Your task to perform on an android device: turn off priority inbox in the gmail app Image 0: 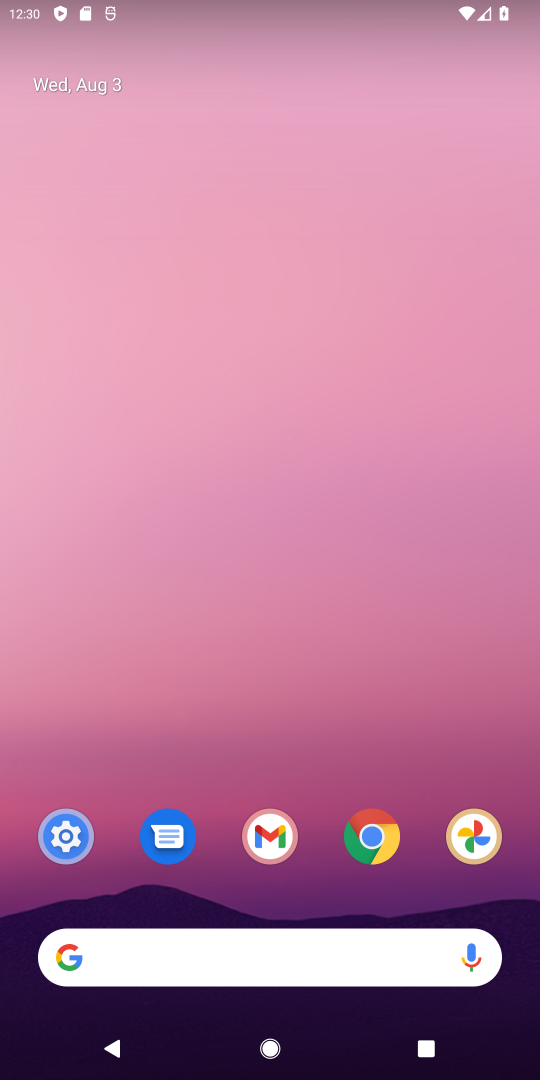
Step 0: click (71, 847)
Your task to perform on an android device: turn off priority inbox in the gmail app Image 1: 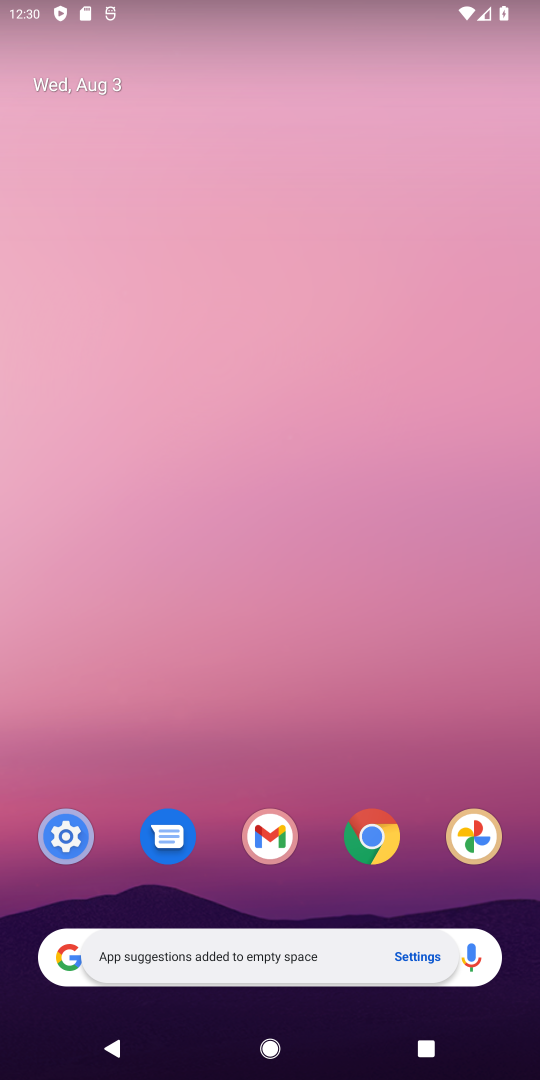
Step 1: click (65, 827)
Your task to perform on an android device: turn off priority inbox in the gmail app Image 2: 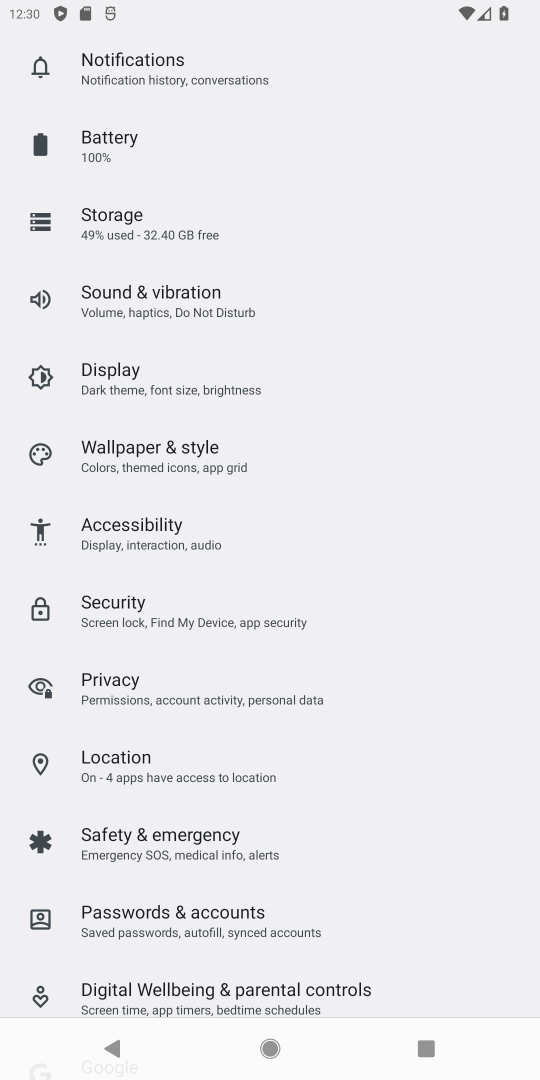
Step 2: drag from (65, 827) to (157, 370)
Your task to perform on an android device: turn off priority inbox in the gmail app Image 3: 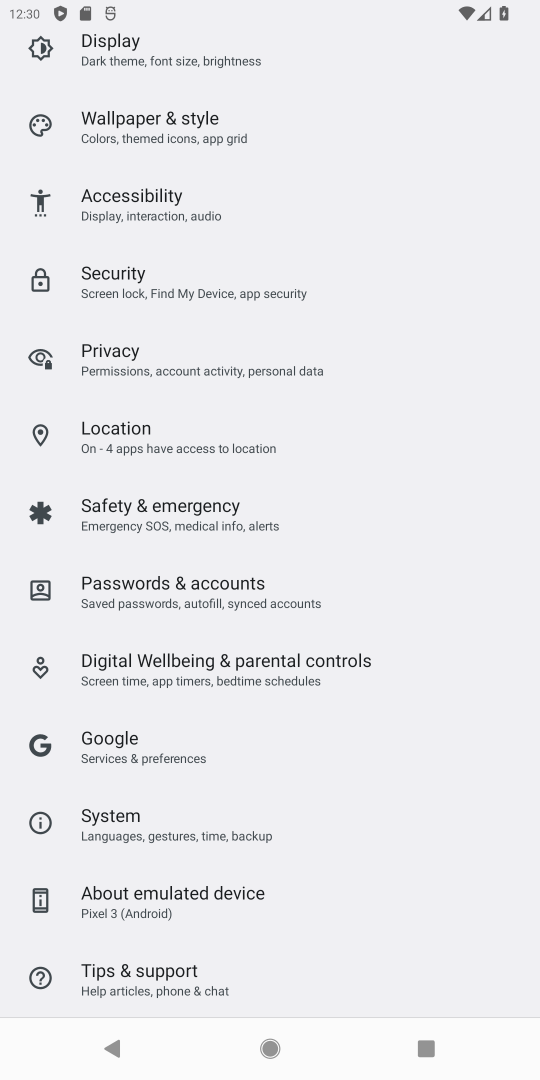
Step 3: drag from (204, 315) to (195, 851)
Your task to perform on an android device: turn off priority inbox in the gmail app Image 4: 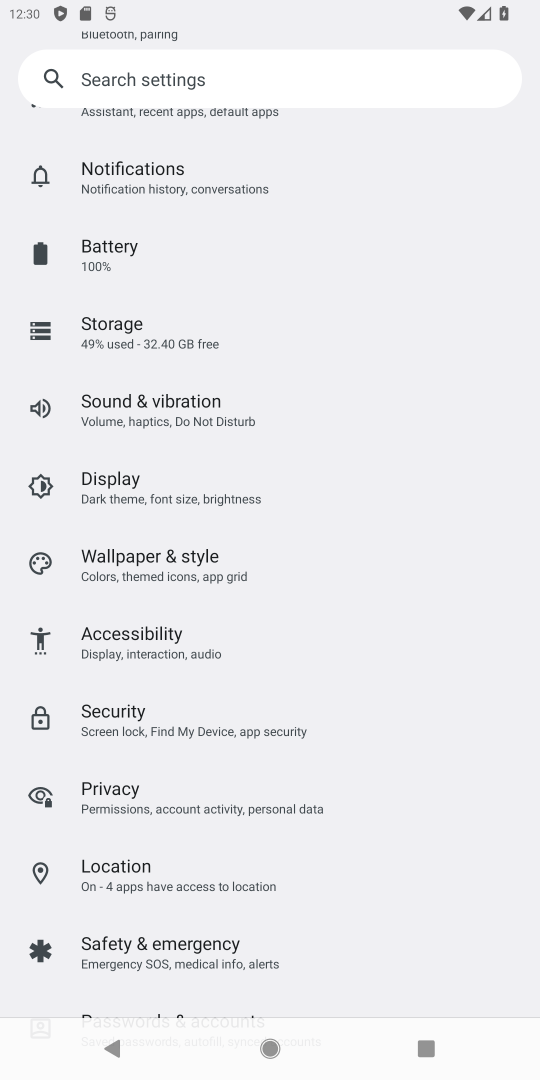
Step 4: drag from (236, 356) to (254, 654)
Your task to perform on an android device: turn off priority inbox in the gmail app Image 5: 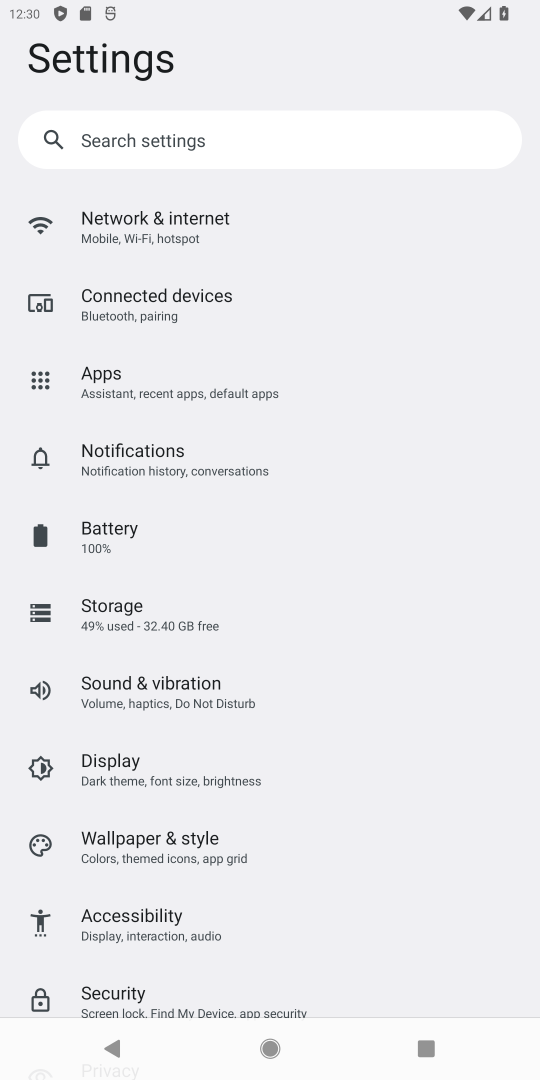
Step 5: drag from (279, 440) to (343, 1042)
Your task to perform on an android device: turn off priority inbox in the gmail app Image 6: 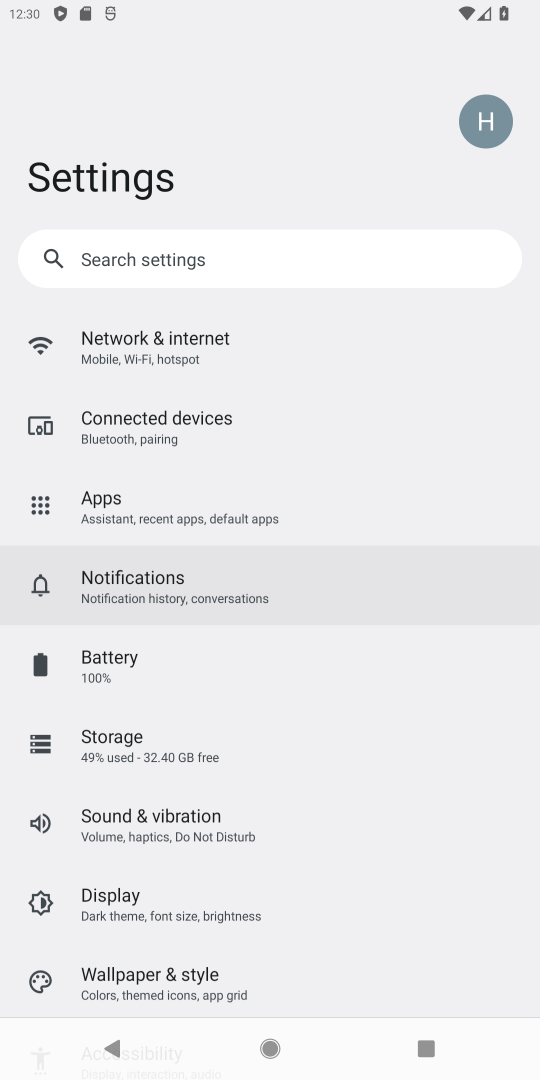
Step 6: drag from (253, 855) to (344, 273)
Your task to perform on an android device: turn off priority inbox in the gmail app Image 7: 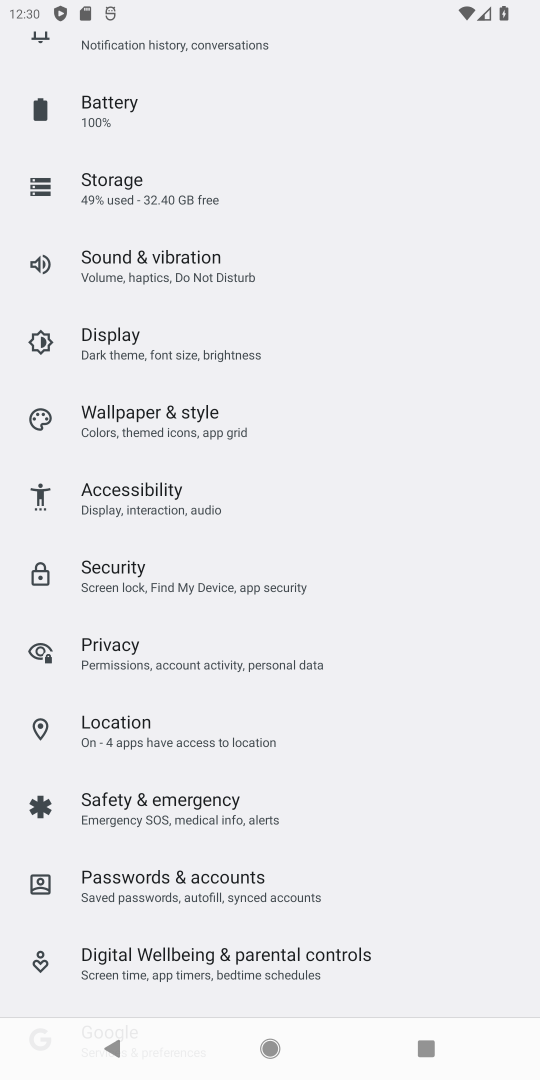
Step 7: drag from (271, 812) to (332, 246)
Your task to perform on an android device: turn off priority inbox in the gmail app Image 8: 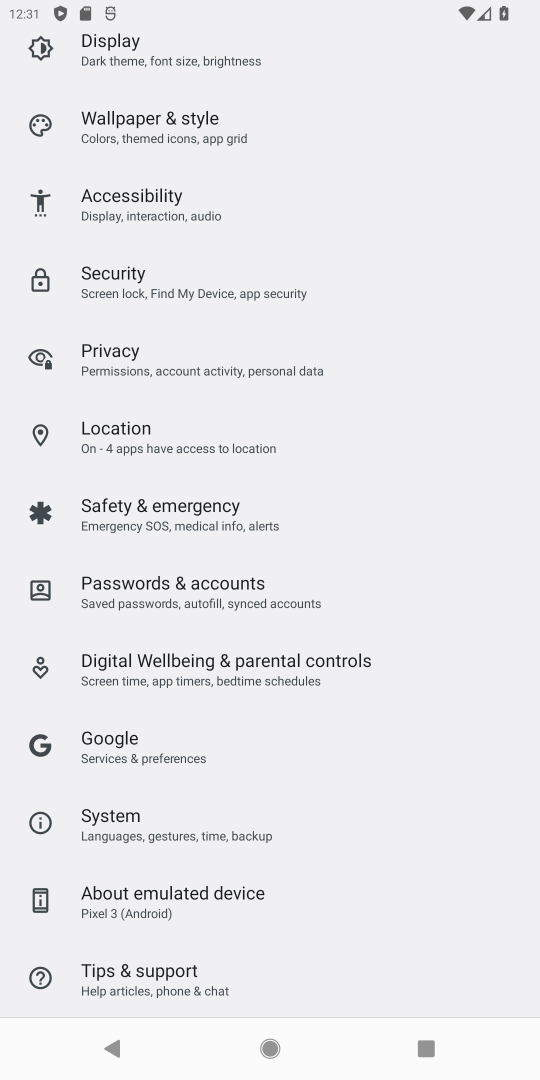
Step 8: drag from (250, 921) to (349, 288)
Your task to perform on an android device: turn off priority inbox in the gmail app Image 9: 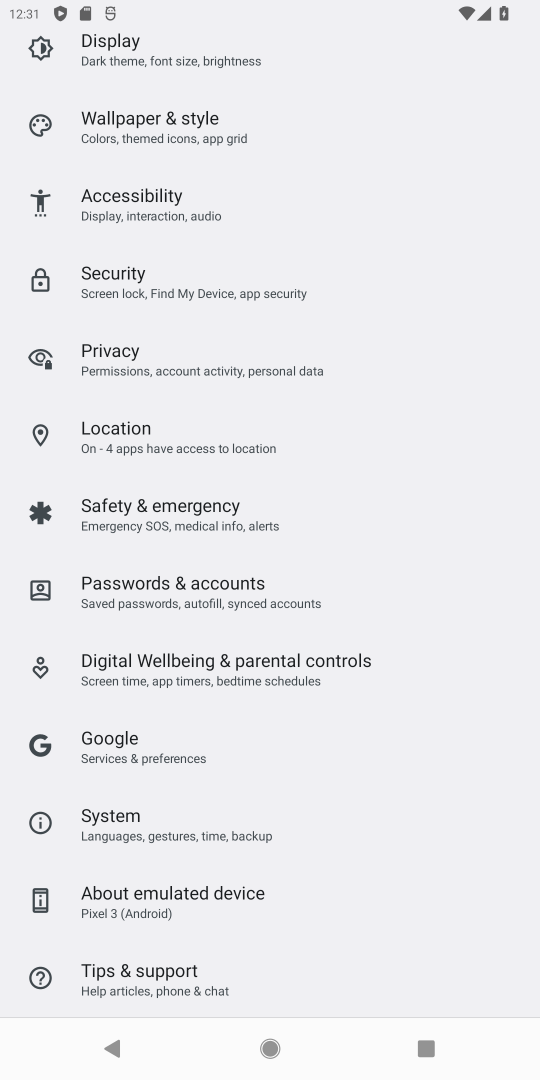
Step 9: press home button
Your task to perform on an android device: turn off priority inbox in the gmail app Image 10: 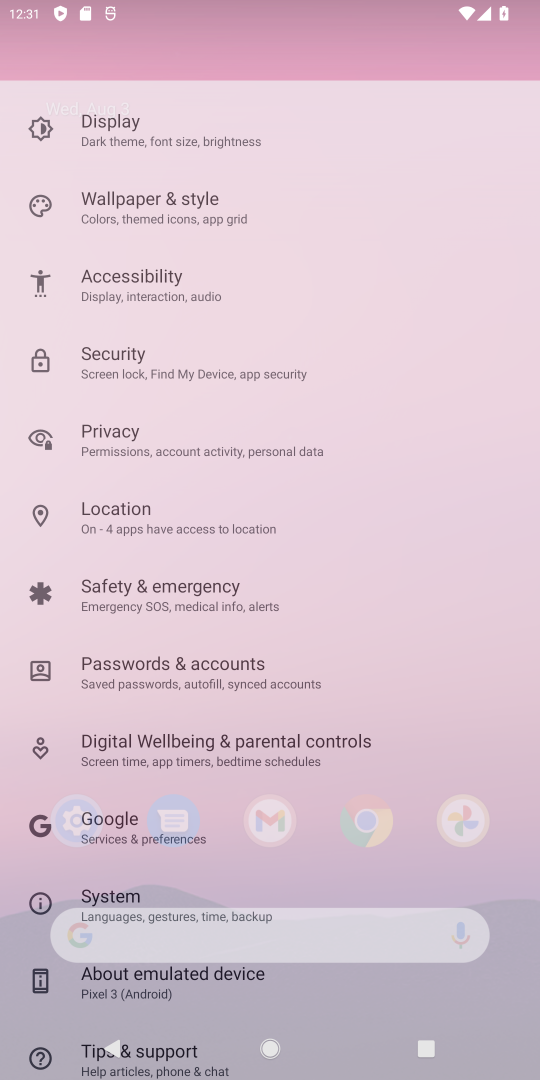
Step 10: drag from (181, 916) to (317, 160)
Your task to perform on an android device: turn off priority inbox in the gmail app Image 11: 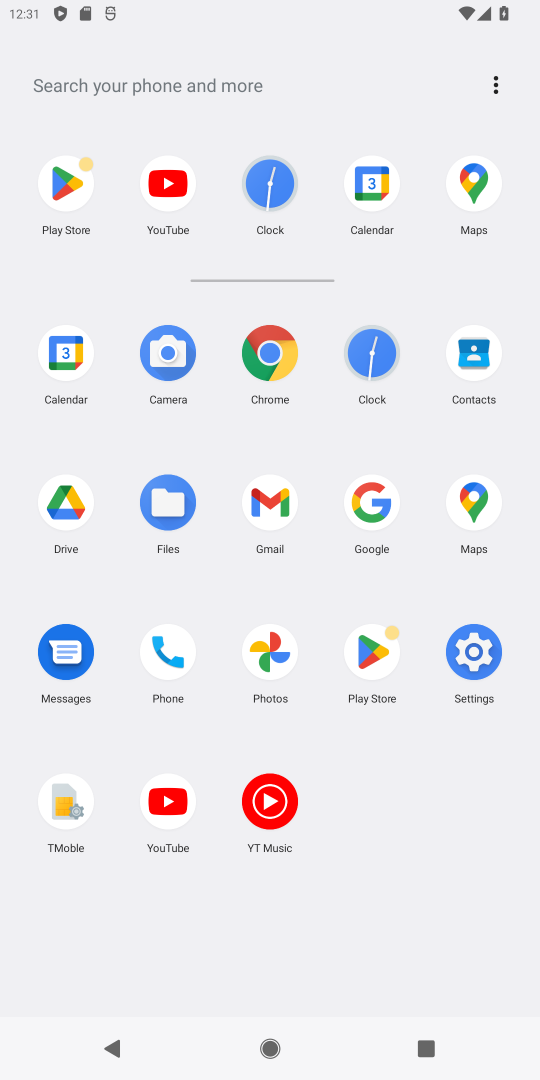
Step 11: click (263, 493)
Your task to perform on an android device: turn off priority inbox in the gmail app Image 12: 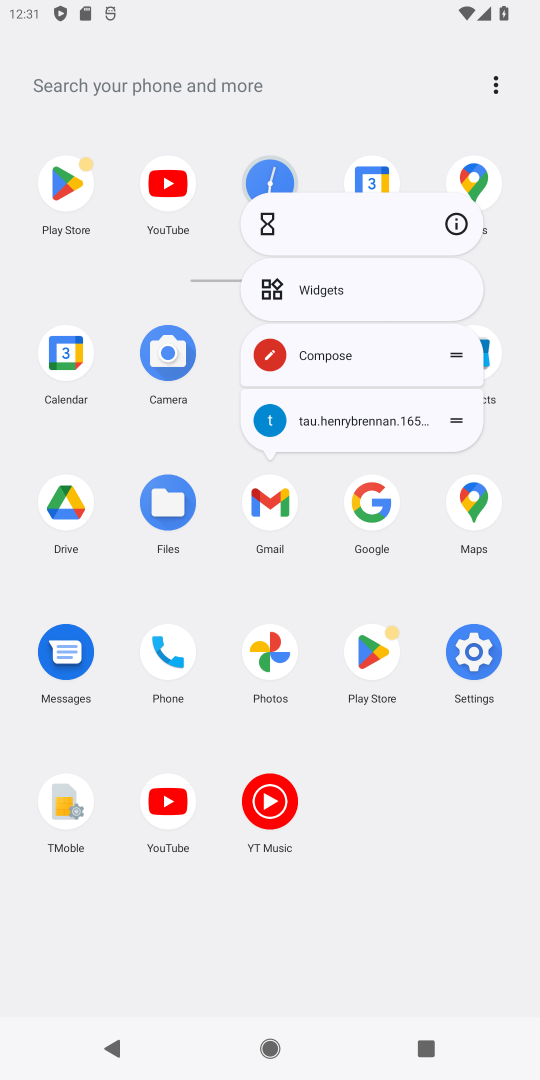
Step 12: click (465, 231)
Your task to perform on an android device: turn off priority inbox in the gmail app Image 13: 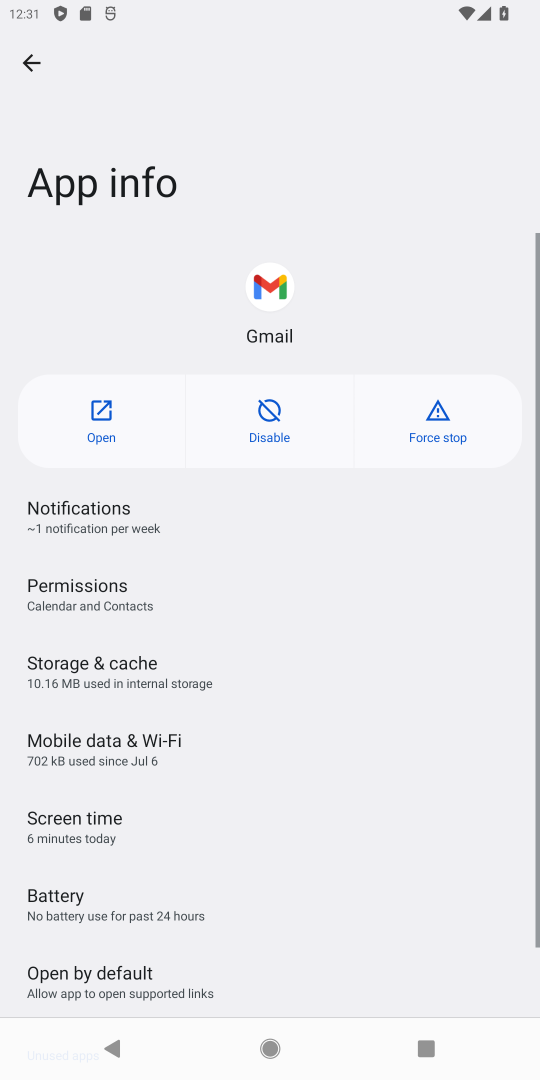
Step 13: click (89, 418)
Your task to perform on an android device: turn off priority inbox in the gmail app Image 14: 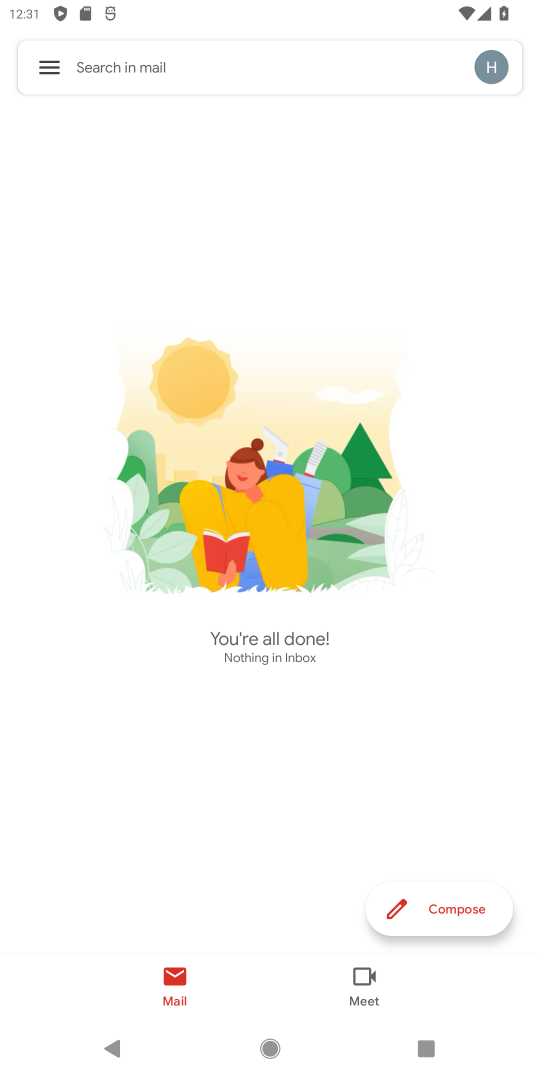
Step 14: drag from (234, 581) to (280, 360)
Your task to perform on an android device: turn off priority inbox in the gmail app Image 15: 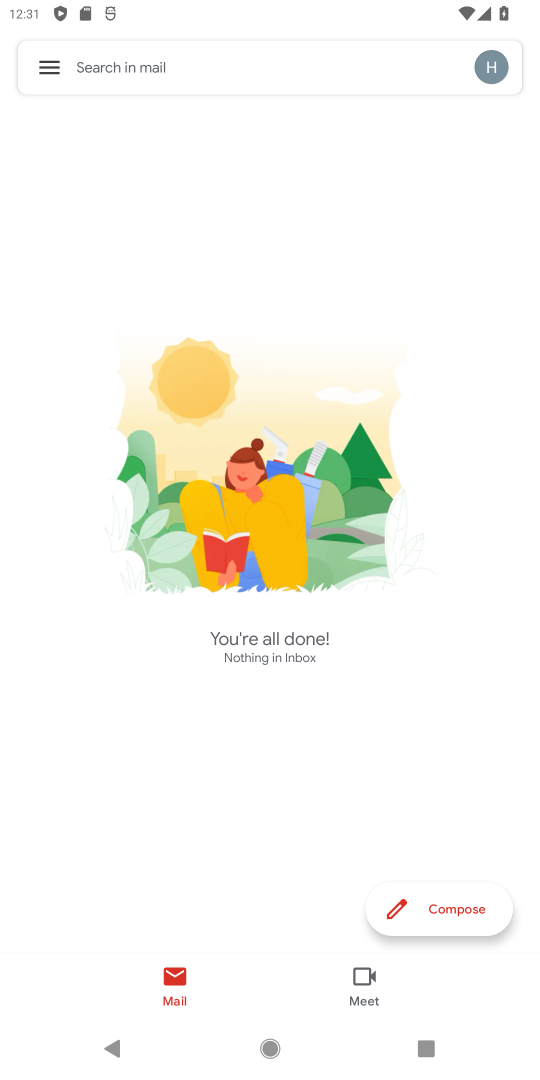
Step 15: drag from (263, 866) to (263, 350)
Your task to perform on an android device: turn off priority inbox in the gmail app Image 16: 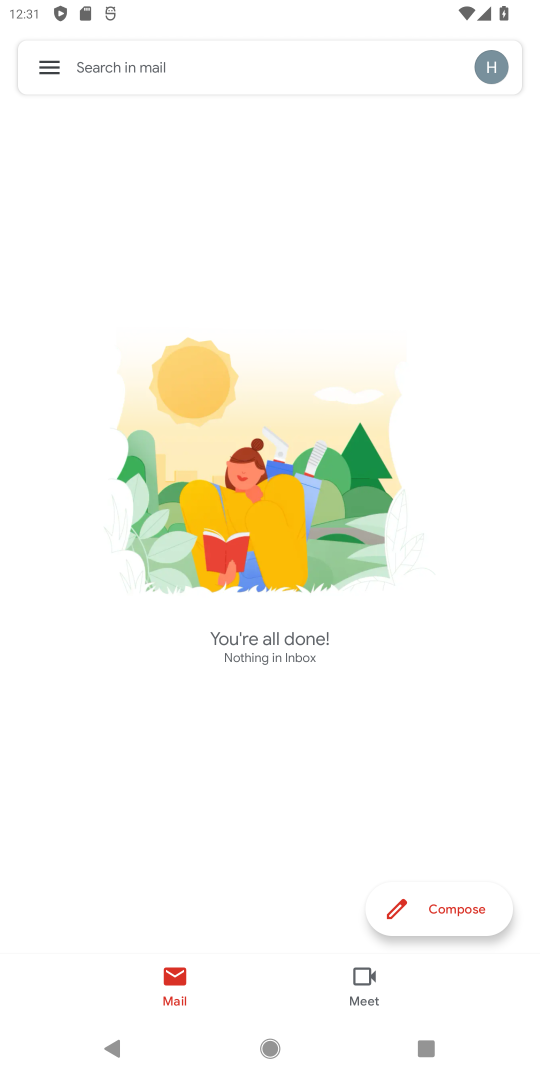
Step 16: click (52, 56)
Your task to perform on an android device: turn off priority inbox in the gmail app Image 17: 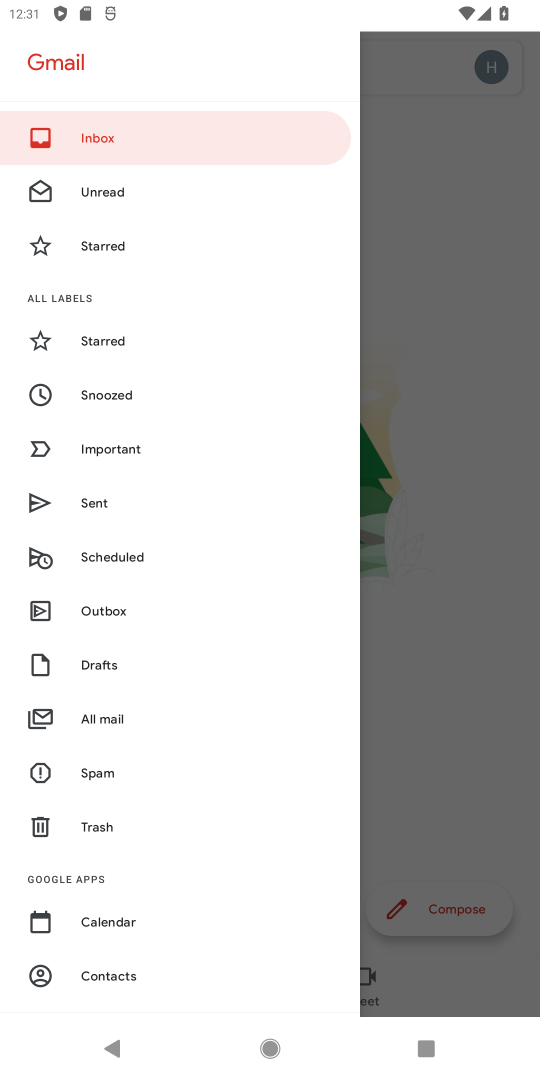
Step 17: drag from (75, 934) to (195, 270)
Your task to perform on an android device: turn off priority inbox in the gmail app Image 18: 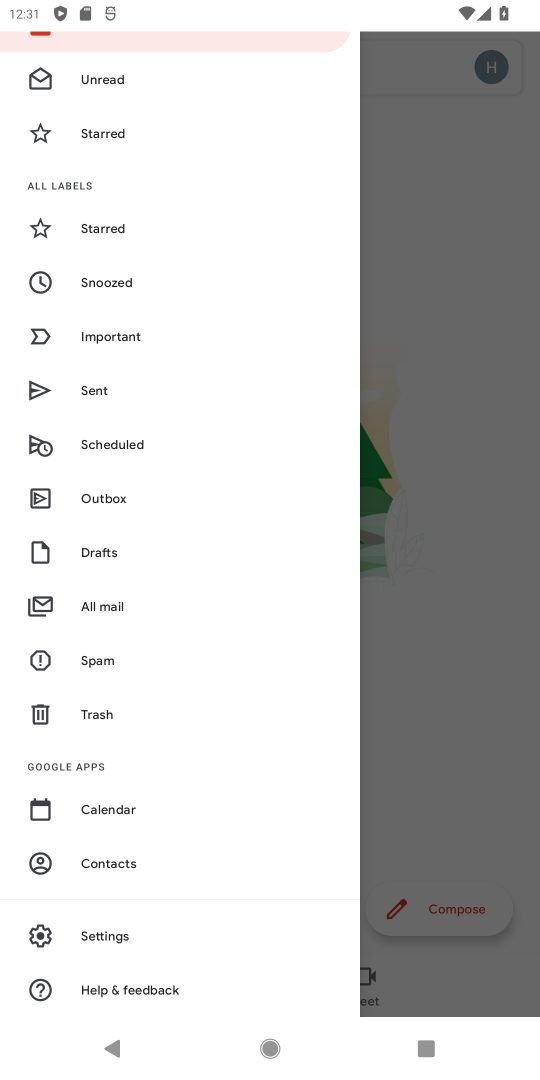
Step 18: click (95, 932)
Your task to perform on an android device: turn off priority inbox in the gmail app Image 19: 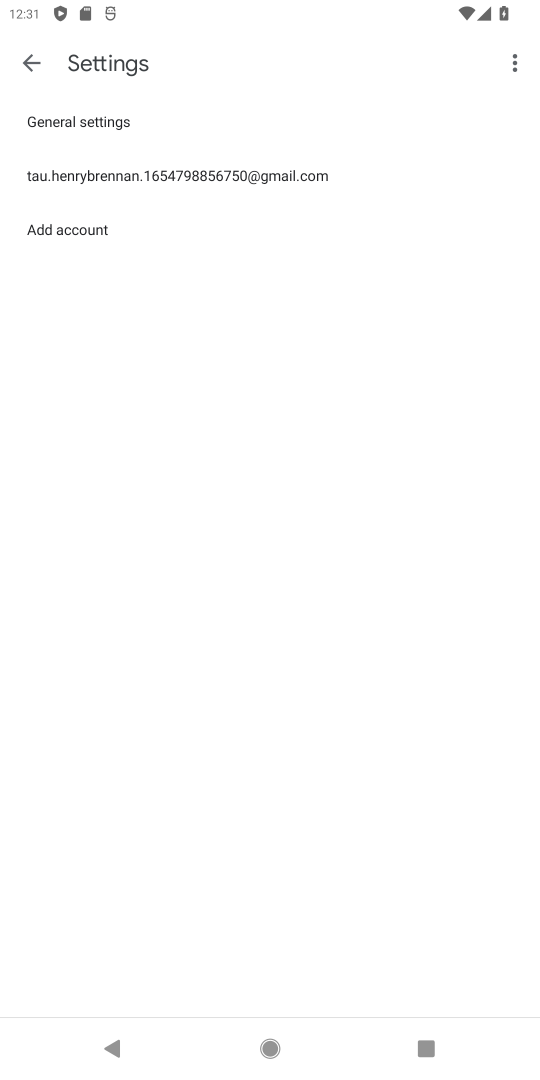
Step 19: drag from (240, 587) to (332, 137)
Your task to perform on an android device: turn off priority inbox in the gmail app Image 20: 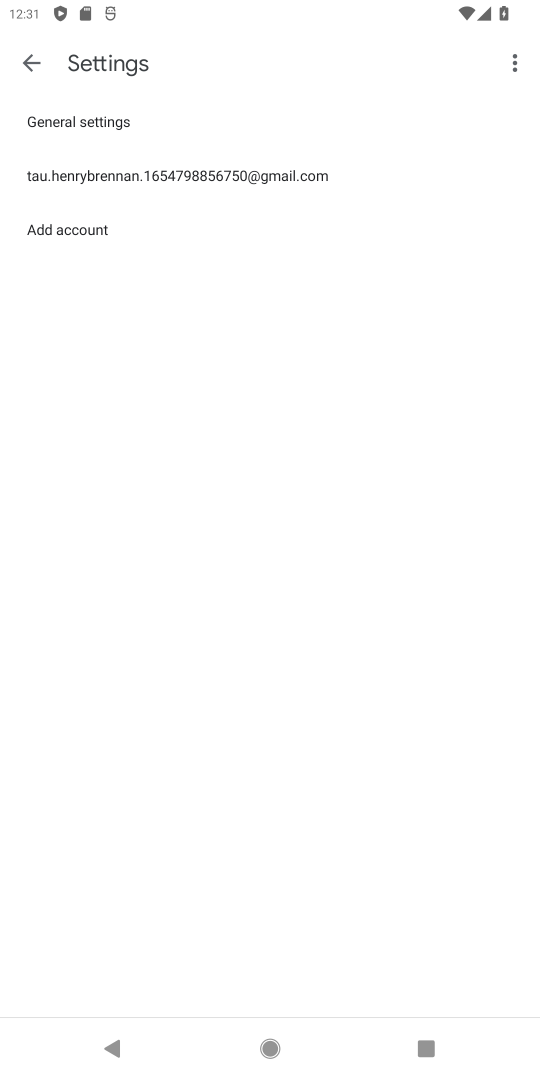
Step 20: click (121, 188)
Your task to perform on an android device: turn off priority inbox in the gmail app Image 21: 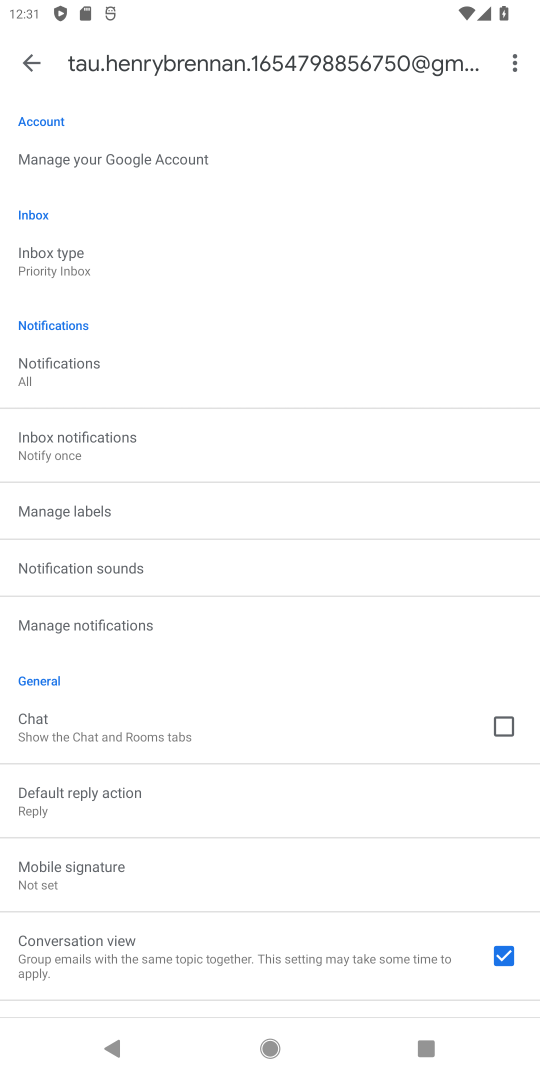
Step 21: task complete